Your task to perform on an android device: refresh tabs in the chrome app Image 0: 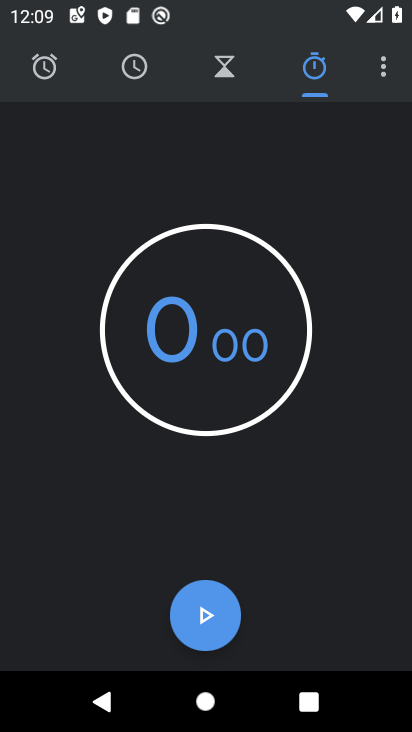
Step 0: press home button
Your task to perform on an android device: refresh tabs in the chrome app Image 1: 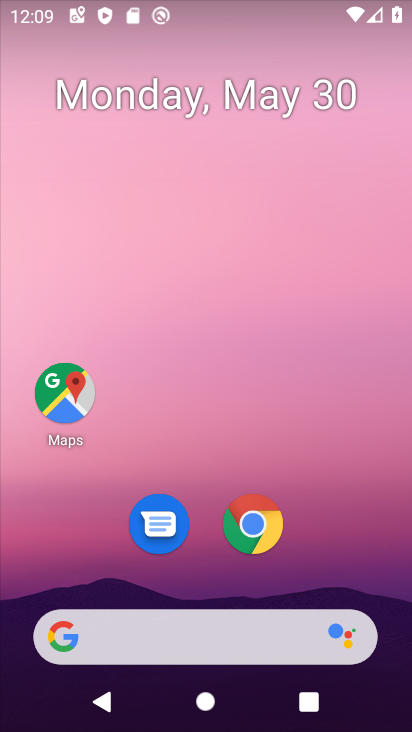
Step 1: click (252, 525)
Your task to perform on an android device: refresh tabs in the chrome app Image 2: 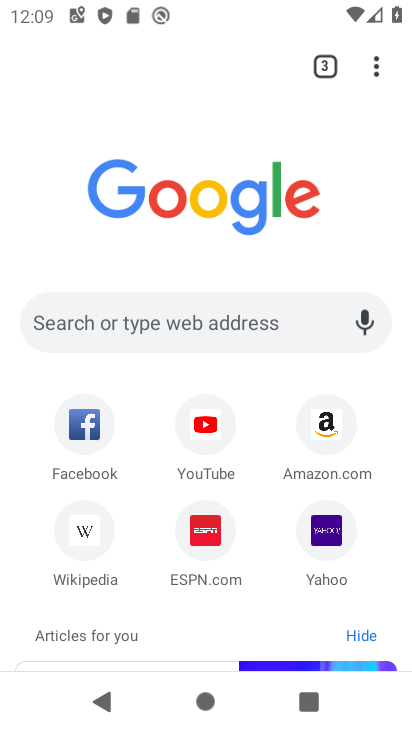
Step 2: click (377, 75)
Your task to perform on an android device: refresh tabs in the chrome app Image 3: 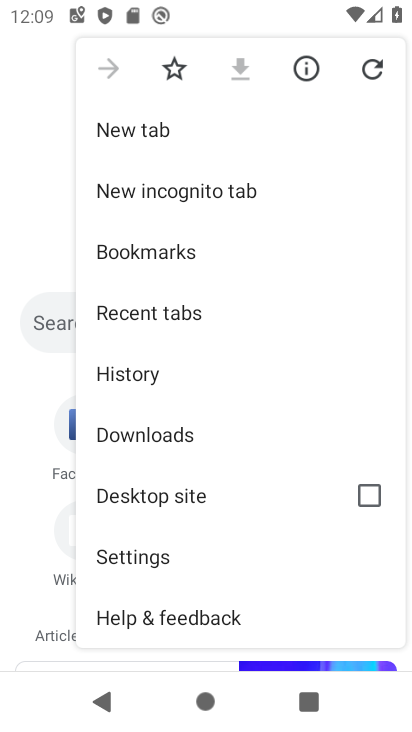
Step 3: click (363, 65)
Your task to perform on an android device: refresh tabs in the chrome app Image 4: 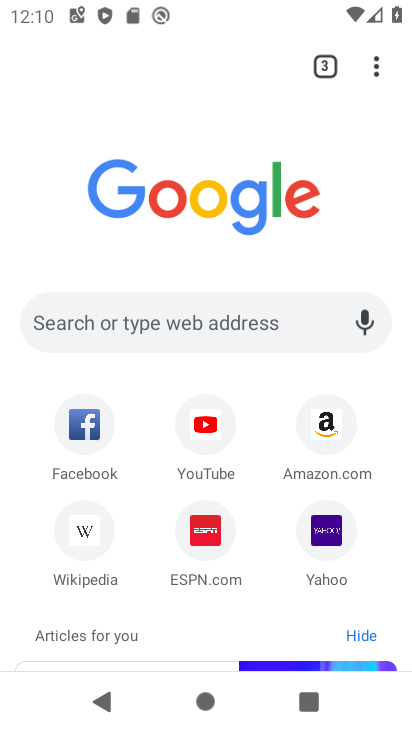
Step 4: click (379, 70)
Your task to perform on an android device: refresh tabs in the chrome app Image 5: 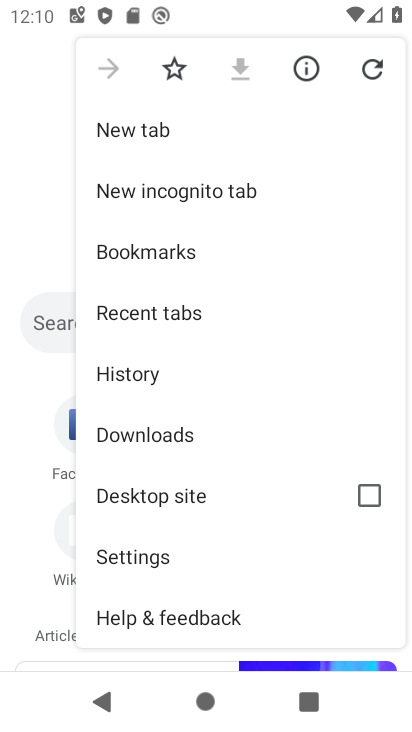
Step 5: click (368, 63)
Your task to perform on an android device: refresh tabs in the chrome app Image 6: 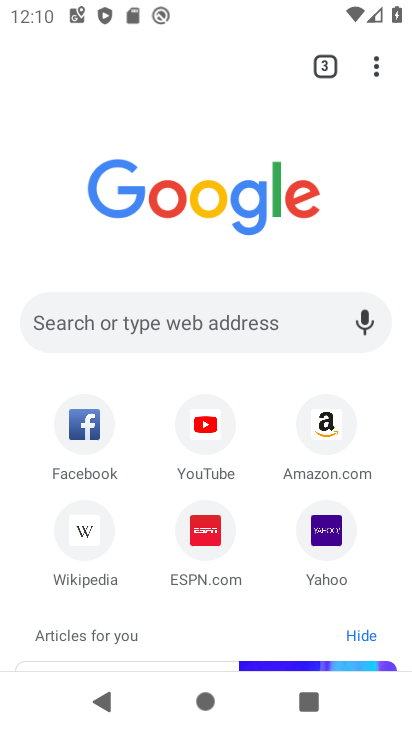
Step 6: task complete